Your task to perform on an android device: Go to sound settings Image 0: 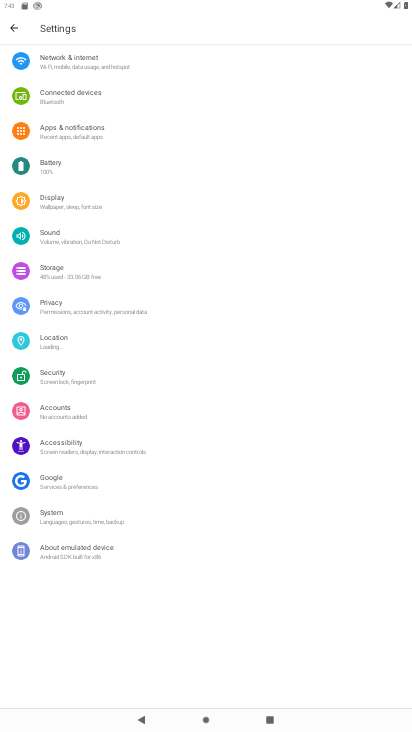
Step 0: press home button
Your task to perform on an android device: Go to sound settings Image 1: 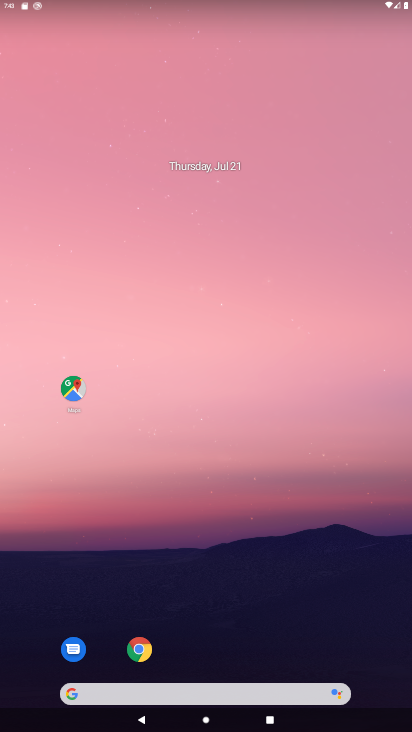
Step 1: drag from (302, 623) to (330, 85)
Your task to perform on an android device: Go to sound settings Image 2: 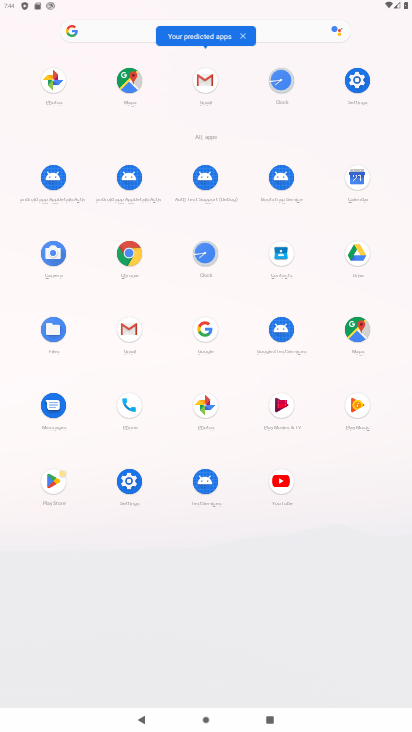
Step 2: click (352, 93)
Your task to perform on an android device: Go to sound settings Image 3: 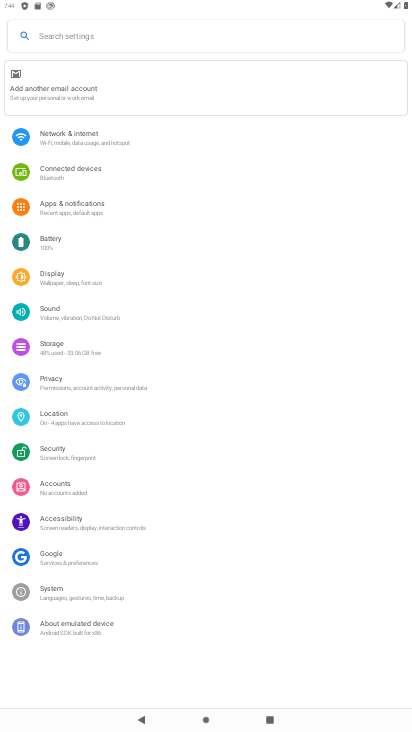
Step 3: click (80, 310)
Your task to perform on an android device: Go to sound settings Image 4: 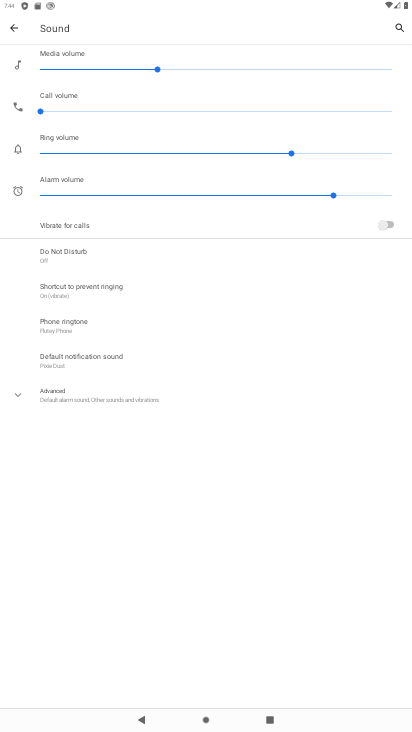
Step 4: task complete